Your task to perform on an android device: change alarm snooze length Image 0: 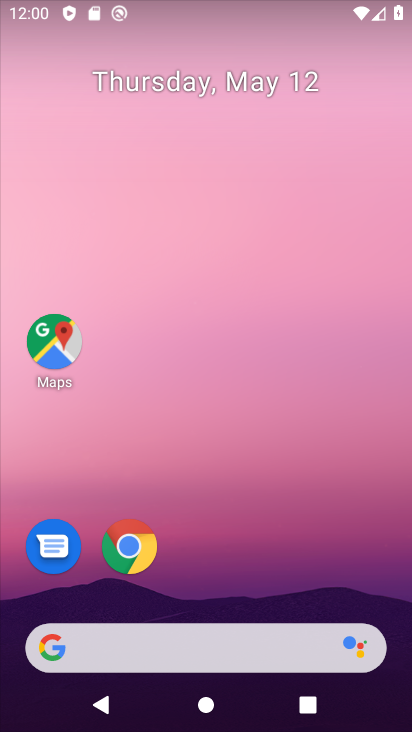
Step 0: drag from (206, 619) to (271, 73)
Your task to perform on an android device: change alarm snooze length Image 1: 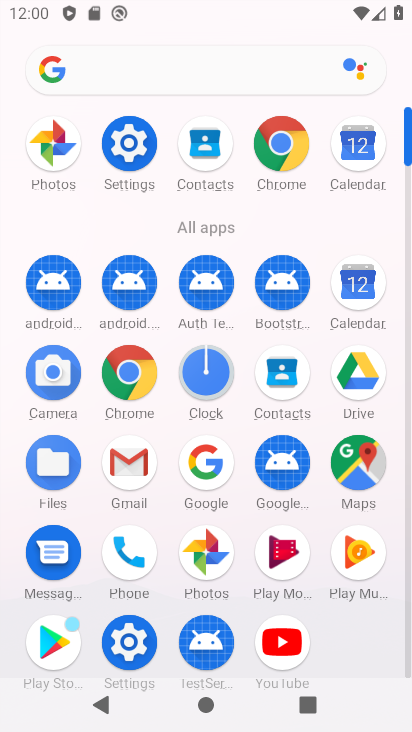
Step 1: drag from (208, 656) to (258, 329)
Your task to perform on an android device: change alarm snooze length Image 2: 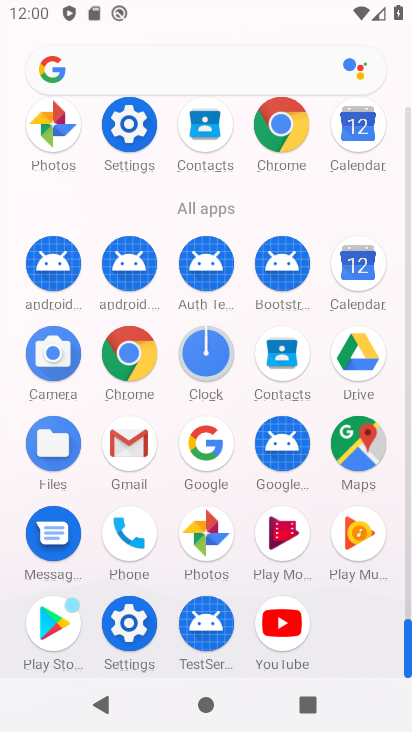
Step 2: click (208, 353)
Your task to perform on an android device: change alarm snooze length Image 3: 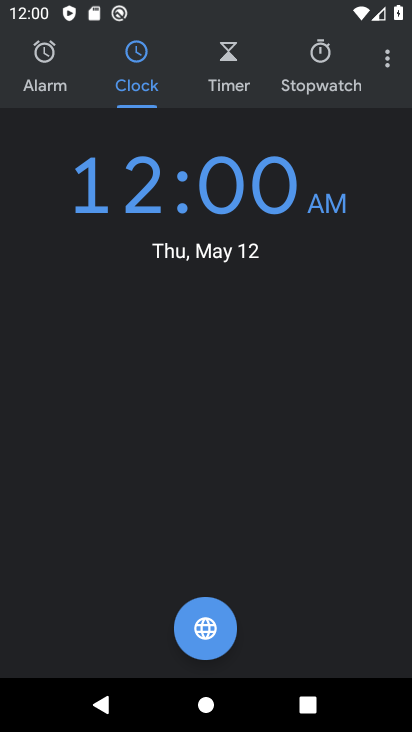
Step 3: click (382, 57)
Your task to perform on an android device: change alarm snooze length Image 4: 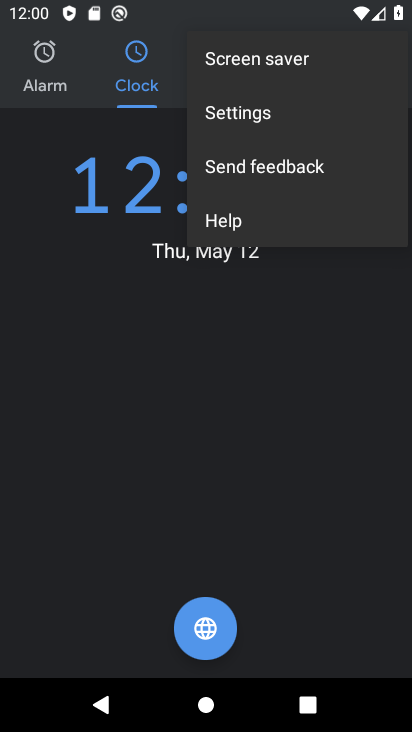
Step 4: click (324, 113)
Your task to perform on an android device: change alarm snooze length Image 5: 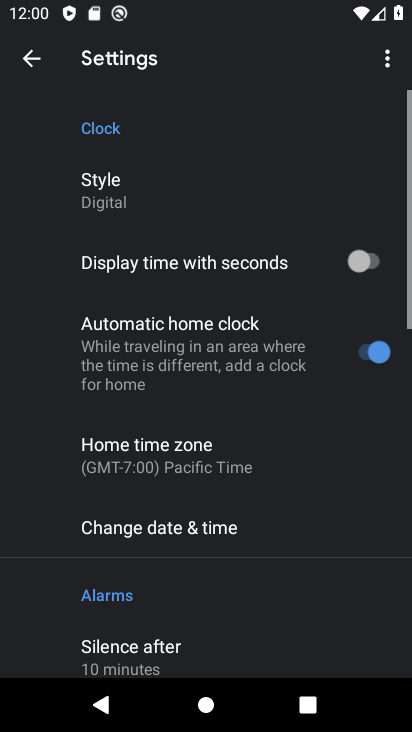
Step 5: drag from (236, 583) to (270, 261)
Your task to perform on an android device: change alarm snooze length Image 6: 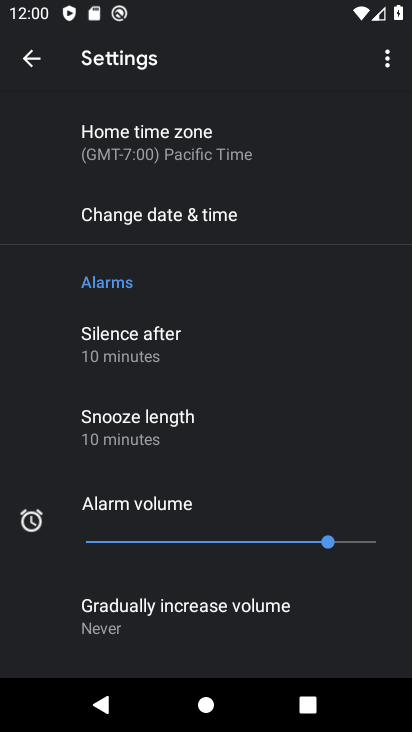
Step 6: click (226, 414)
Your task to perform on an android device: change alarm snooze length Image 7: 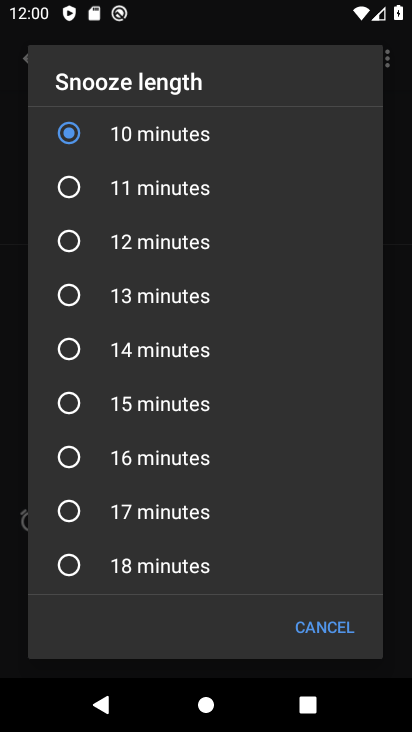
Step 7: click (203, 570)
Your task to perform on an android device: change alarm snooze length Image 8: 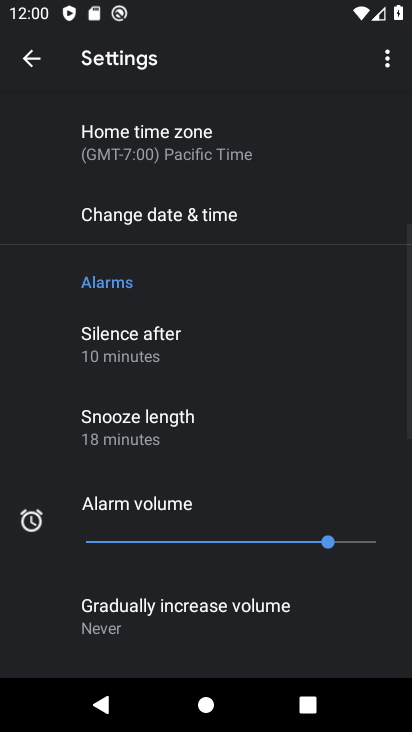
Step 8: task complete